Your task to perform on an android device: Open Maps and search for coffee Image 0: 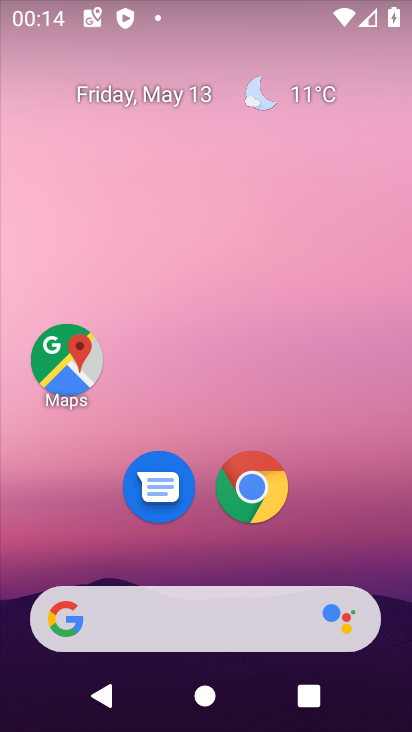
Step 0: click (39, 356)
Your task to perform on an android device: Open Maps and search for coffee Image 1: 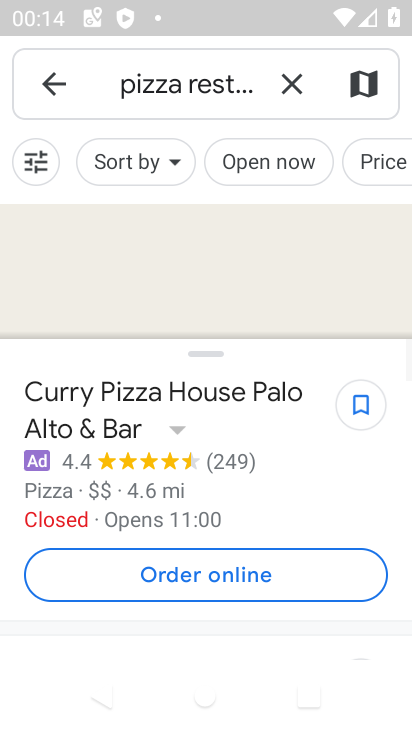
Step 1: click (312, 114)
Your task to perform on an android device: Open Maps and search for coffee Image 2: 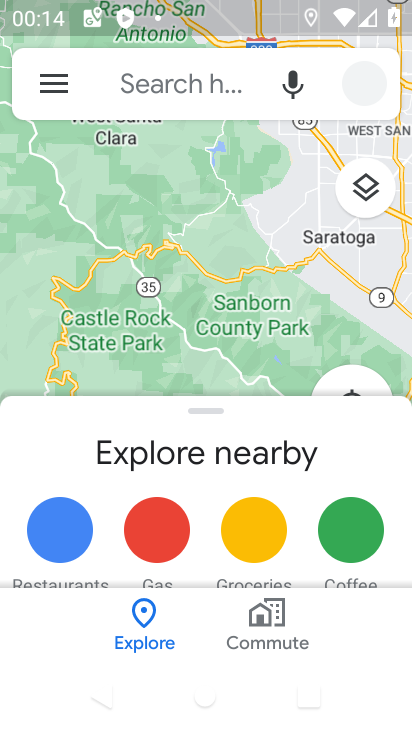
Step 2: click (261, 94)
Your task to perform on an android device: Open Maps and search for coffee Image 3: 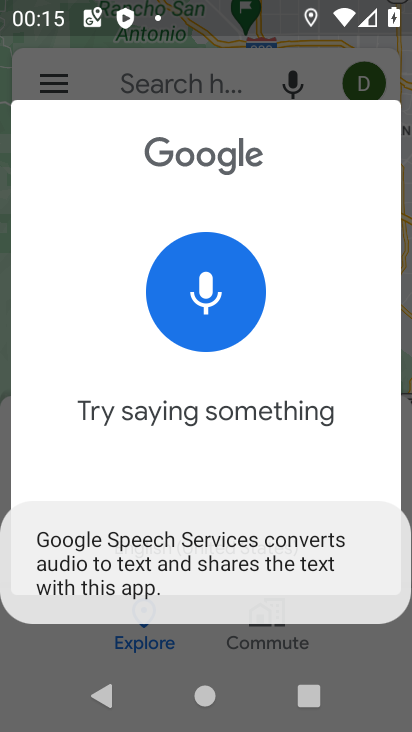
Step 3: click (215, 77)
Your task to perform on an android device: Open Maps and search for coffee Image 4: 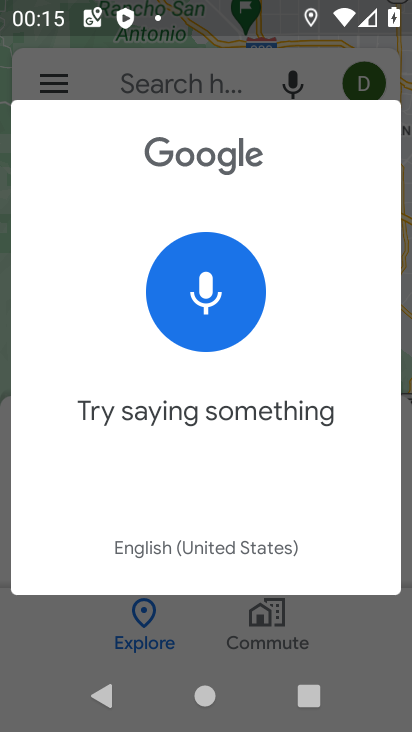
Step 4: click (215, 77)
Your task to perform on an android device: Open Maps and search for coffee Image 5: 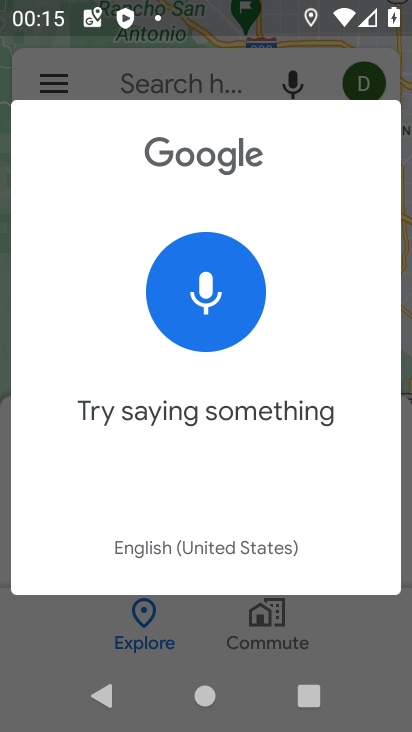
Step 5: click (176, 80)
Your task to perform on an android device: Open Maps and search for coffee Image 6: 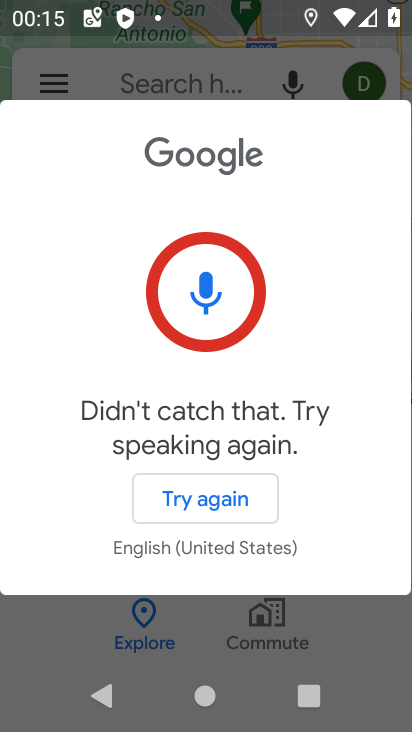
Step 6: press back button
Your task to perform on an android device: Open Maps and search for coffee Image 7: 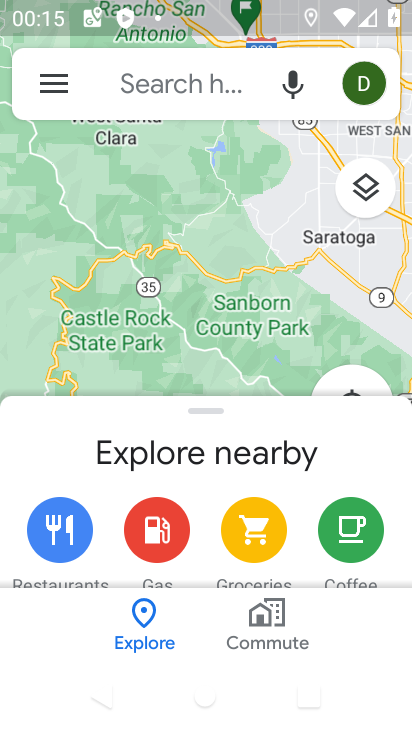
Step 7: click (184, 71)
Your task to perform on an android device: Open Maps and search for coffee Image 8: 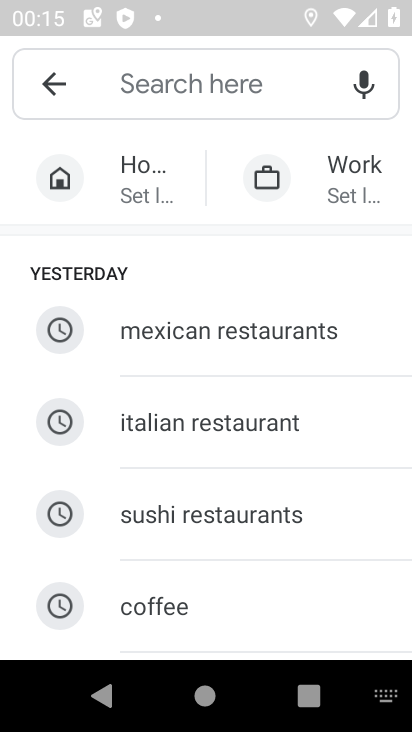
Step 8: click (147, 605)
Your task to perform on an android device: Open Maps and search for coffee Image 9: 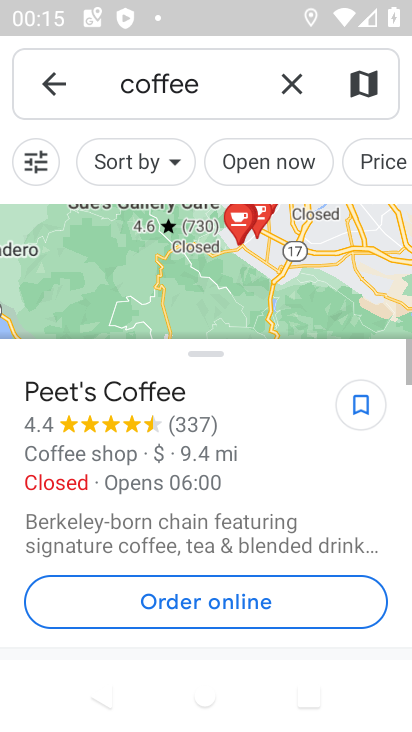
Step 9: task complete